Your task to perform on an android device: search for starred emails in the gmail app Image 0: 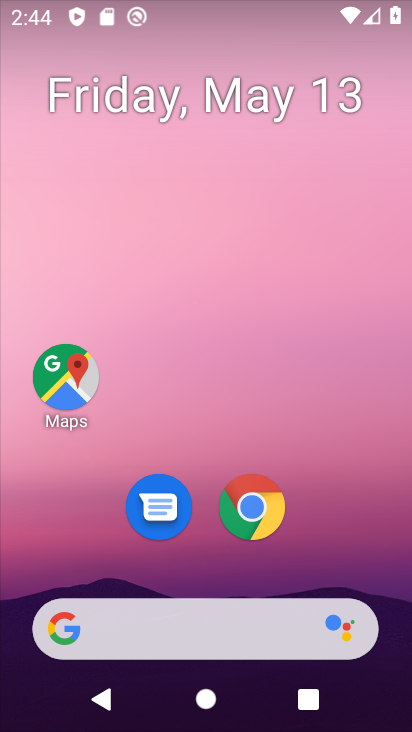
Step 0: drag from (339, 251) to (368, 55)
Your task to perform on an android device: search for starred emails in the gmail app Image 1: 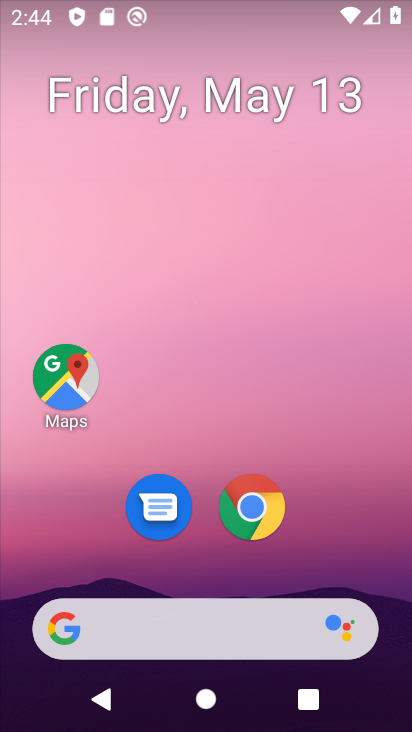
Step 1: drag from (317, 567) to (292, 32)
Your task to perform on an android device: search for starred emails in the gmail app Image 2: 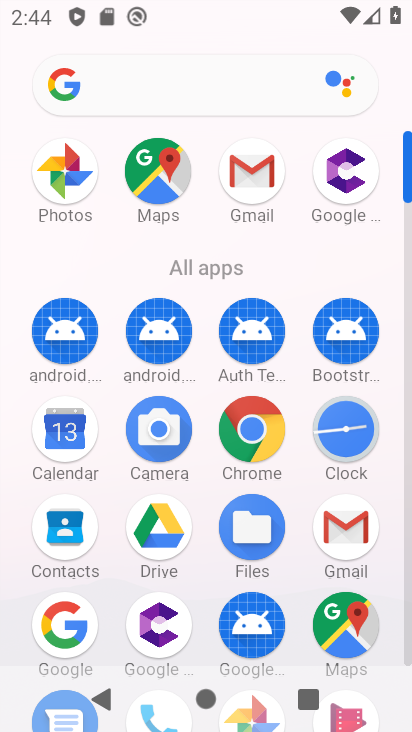
Step 2: click (349, 535)
Your task to perform on an android device: search for starred emails in the gmail app Image 3: 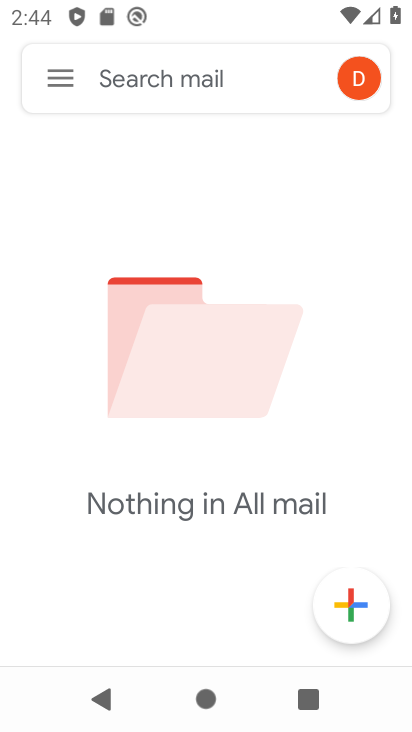
Step 3: click (68, 81)
Your task to perform on an android device: search for starred emails in the gmail app Image 4: 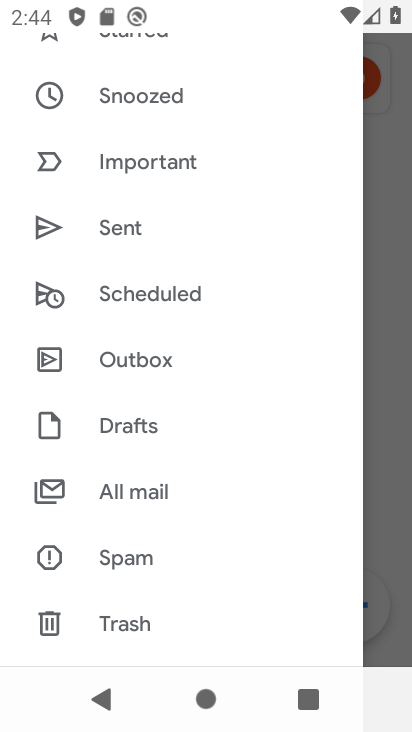
Step 4: click (154, 495)
Your task to perform on an android device: search for starred emails in the gmail app Image 5: 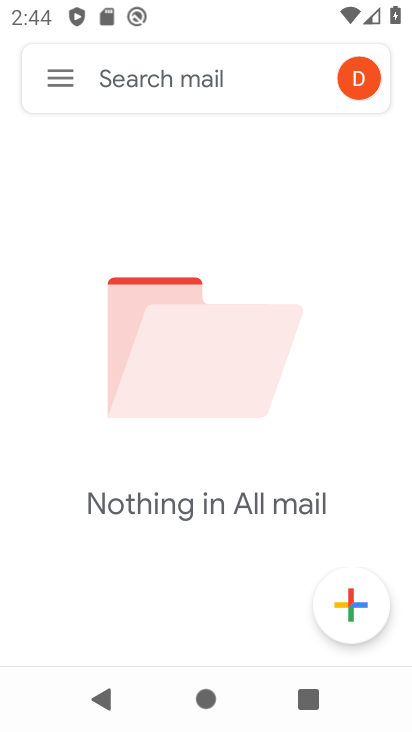
Step 5: task complete